Your task to perform on an android device: Open Chrome and go to settings Image 0: 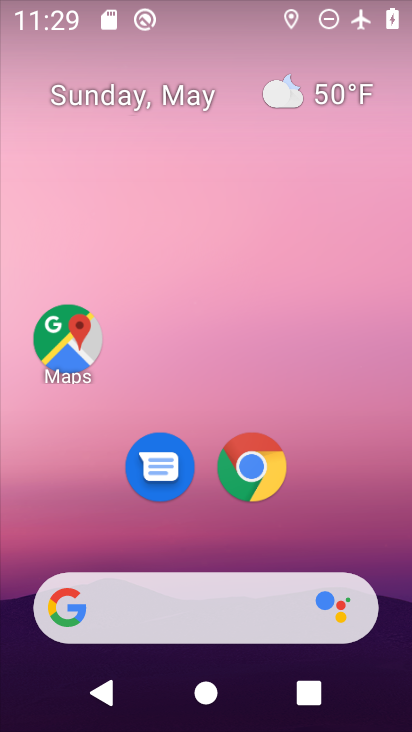
Step 0: click (239, 491)
Your task to perform on an android device: Open Chrome and go to settings Image 1: 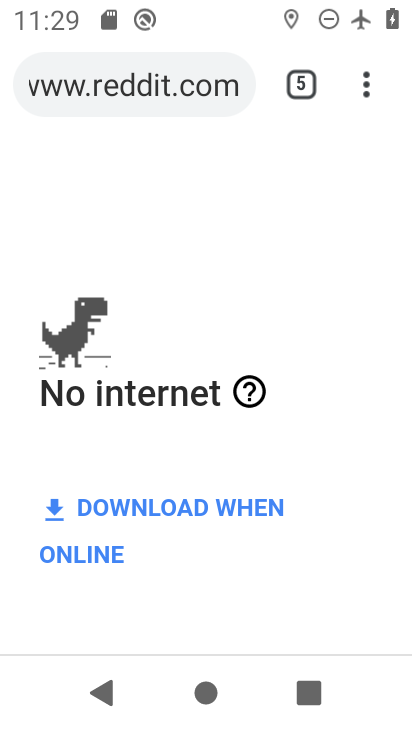
Step 1: task complete